Your task to perform on an android device: toggle show notifications on the lock screen Image 0: 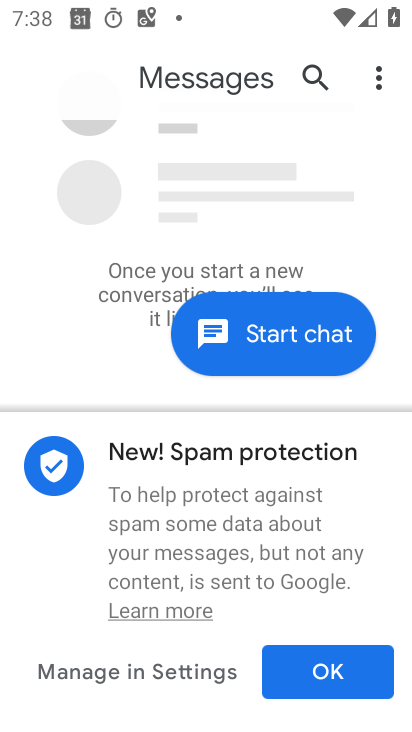
Step 0: press home button
Your task to perform on an android device: toggle show notifications on the lock screen Image 1: 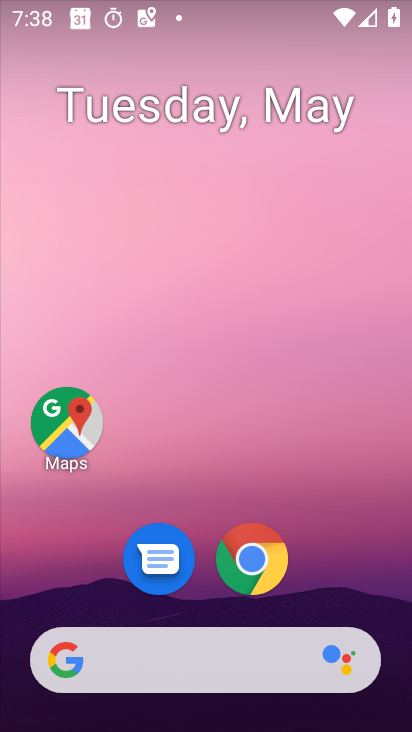
Step 1: drag from (395, 653) to (310, 58)
Your task to perform on an android device: toggle show notifications on the lock screen Image 2: 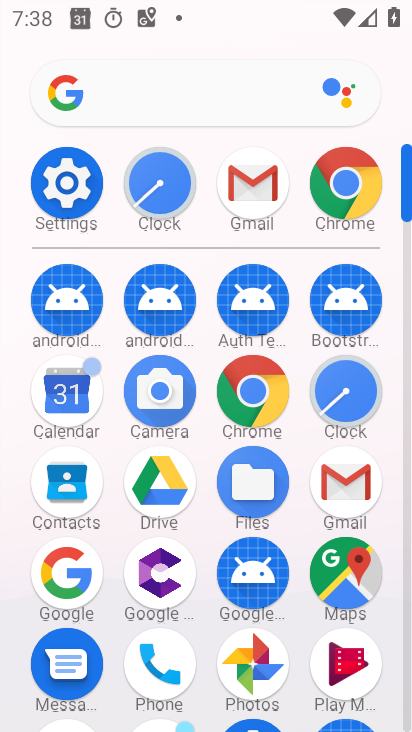
Step 2: click (57, 167)
Your task to perform on an android device: toggle show notifications on the lock screen Image 3: 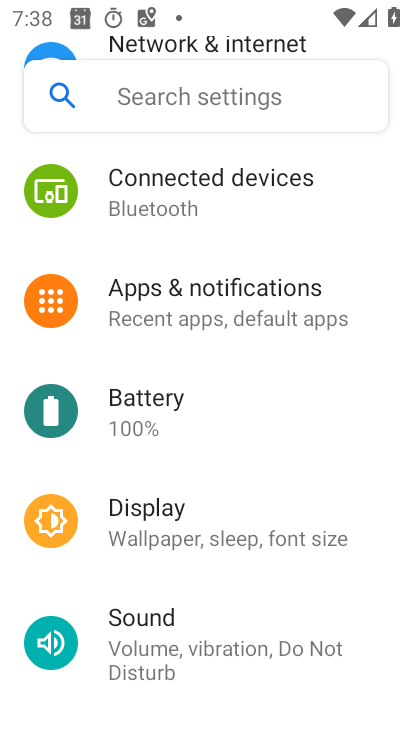
Step 3: click (217, 312)
Your task to perform on an android device: toggle show notifications on the lock screen Image 4: 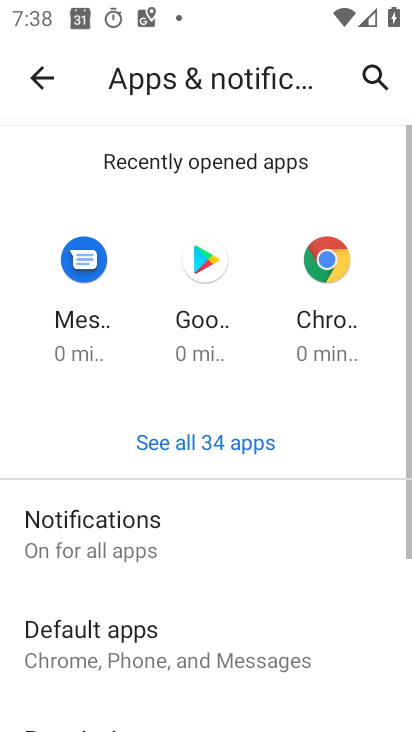
Step 4: click (188, 559)
Your task to perform on an android device: toggle show notifications on the lock screen Image 5: 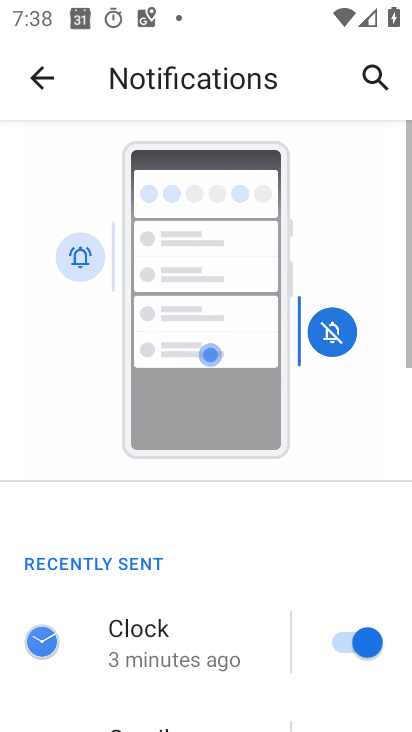
Step 5: drag from (187, 637) to (168, 87)
Your task to perform on an android device: toggle show notifications on the lock screen Image 6: 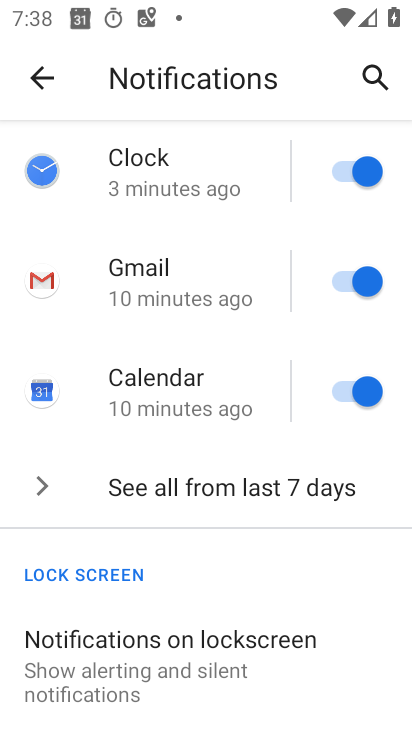
Step 6: click (182, 645)
Your task to perform on an android device: toggle show notifications on the lock screen Image 7: 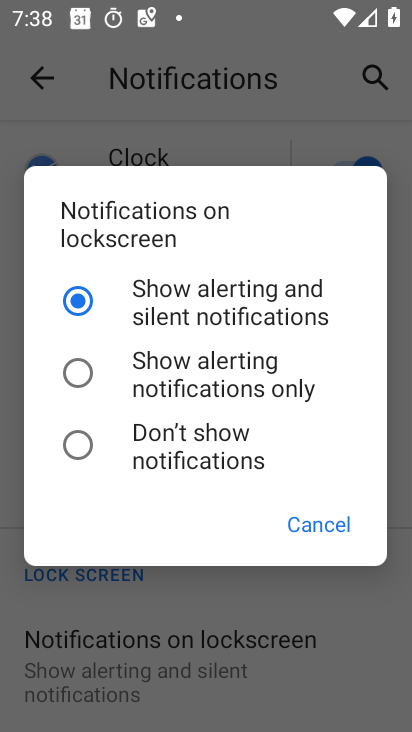
Step 7: click (80, 434)
Your task to perform on an android device: toggle show notifications on the lock screen Image 8: 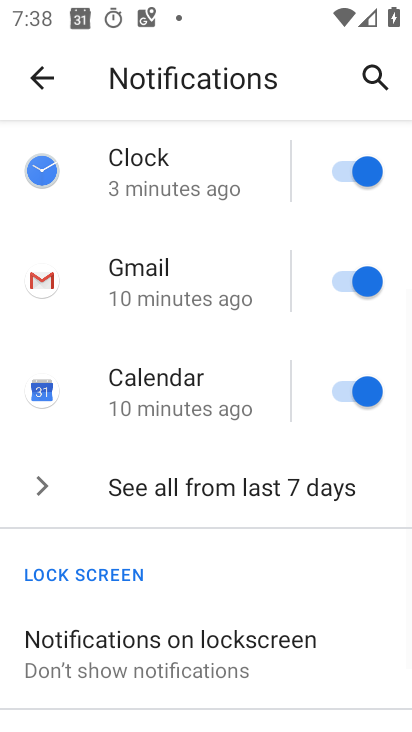
Step 8: task complete